Your task to perform on an android device: What's the weather today? Image 0: 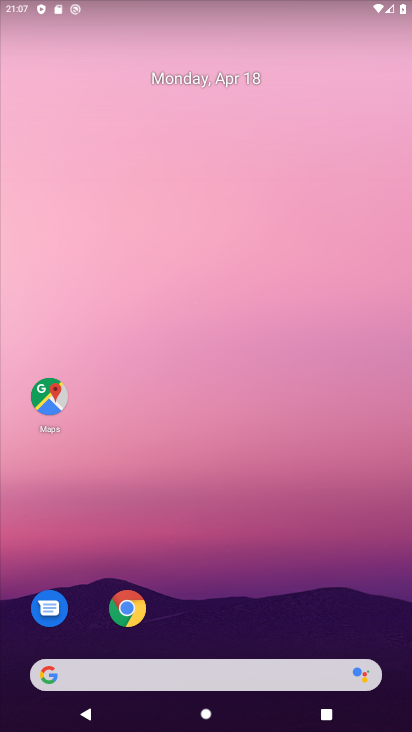
Step 0: drag from (258, 582) to (280, 138)
Your task to perform on an android device: What's the weather today? Image 1: 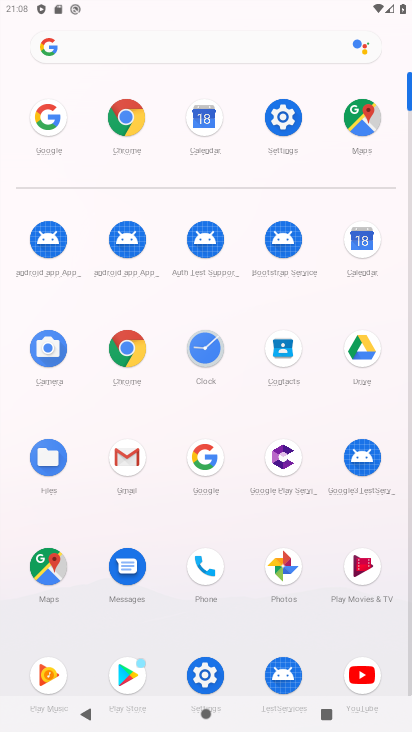
Step 1: click (167, 448)
Your task to perform on an android device: What's the weather today? Image 2: 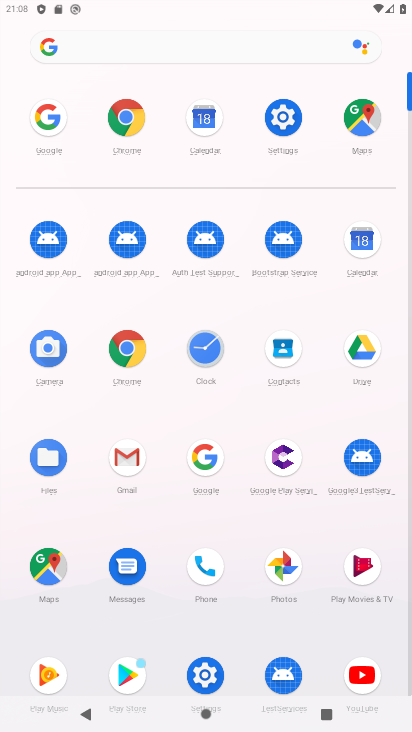
Step 2: click (43, 135)
Your task to perform on an android device: What's the weather today? Image 3: 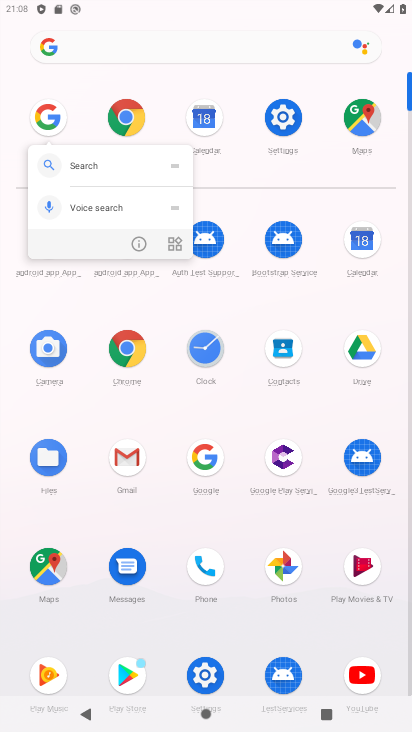
Step 3: click (45, 118)
Your task to perform on an android device: What's the weather today? Image 4: 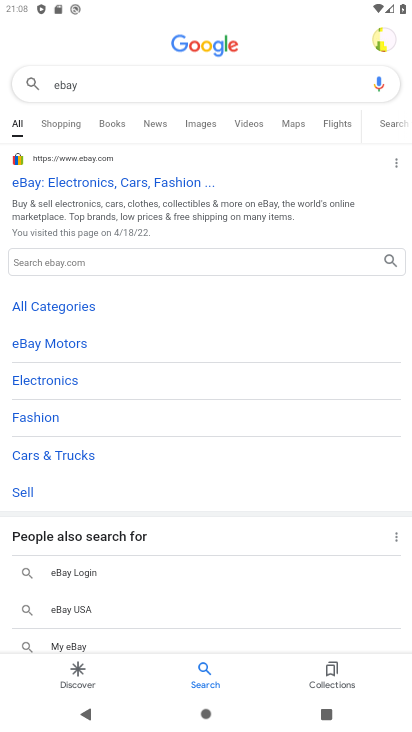
Step 4: click (168, 82)
Your task to perform on an android device: What's the weather today? Image 5: 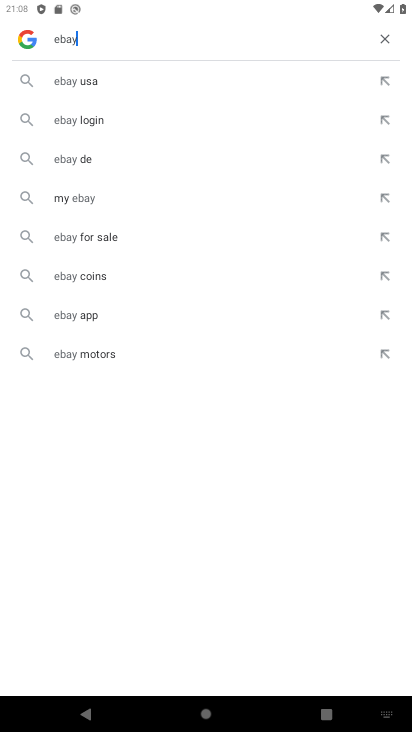
Step 5: click (384, 34)
Your task to perform on an android device: What's the weather today? Image 6: 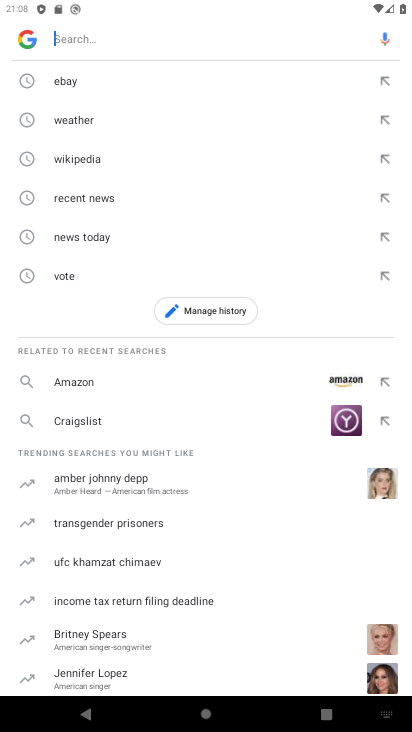
Step 6: type "weather today"
Your task to perform on an android device: What's the weather today? Image 7: 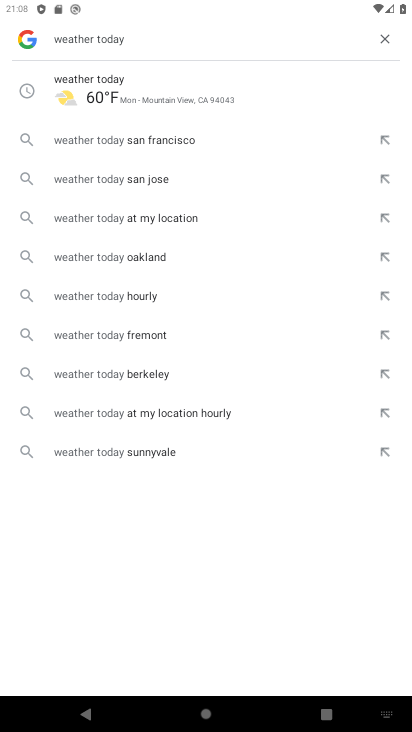
Step 7: click (162, 90)
Your task to perform on an android device: What's the weather today? Image 8: 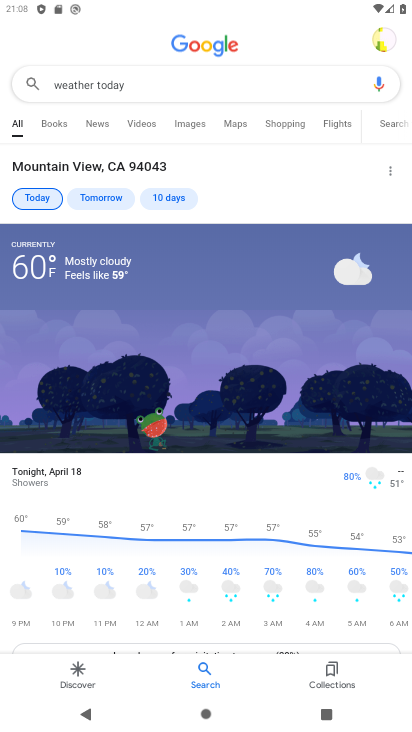
Step 8: task complete